Your task to perform on an android device: Go to Android settings Image 0: 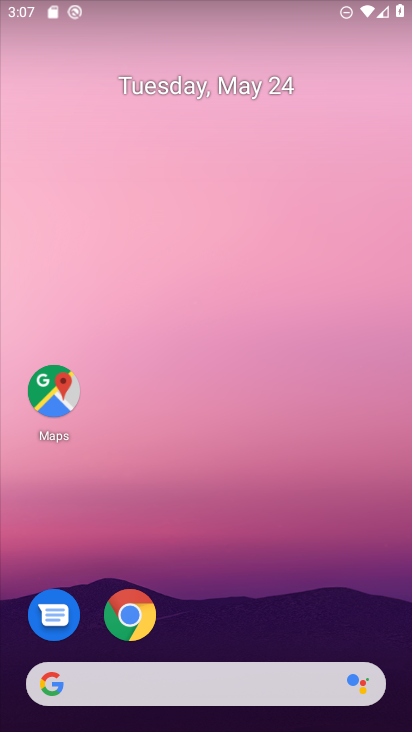
Step 0: drag from (245, 623) to (314, 123)
Your task to perform on an android device: Go to Android settings Image 1: 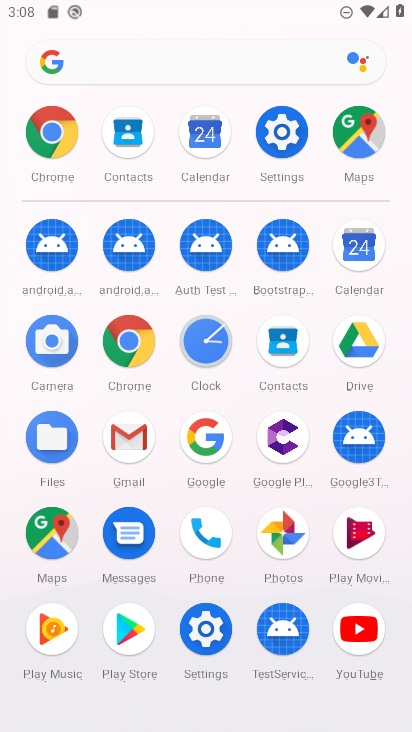
Step 1: click (281, 147)
Your task to perform on an android device: Go to Android settings Image 2: 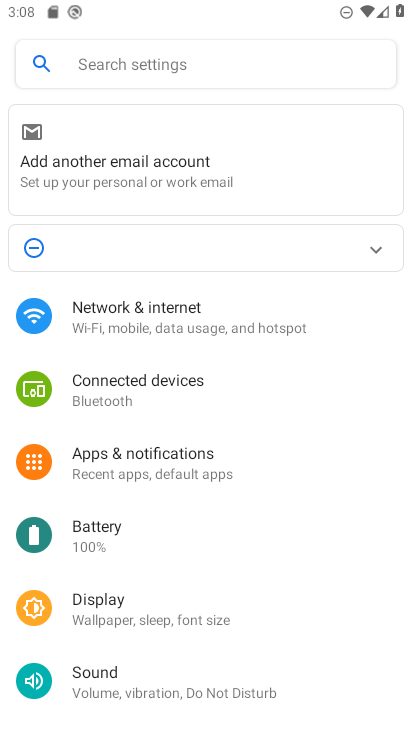
Step 2: drag from (229, 503) to (266, 263)
Your task to perform on an android device: Go to Android settings Image 3: 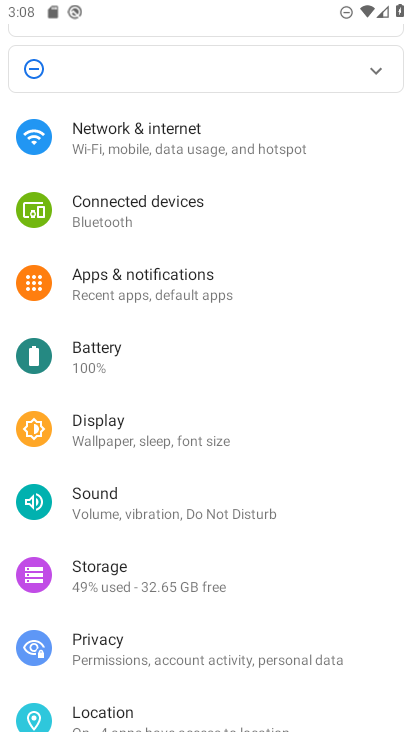
Step 3: drag from (232, 490) to (332, 11)
Your task to perform on an android device: Go to Android settings Image 4: 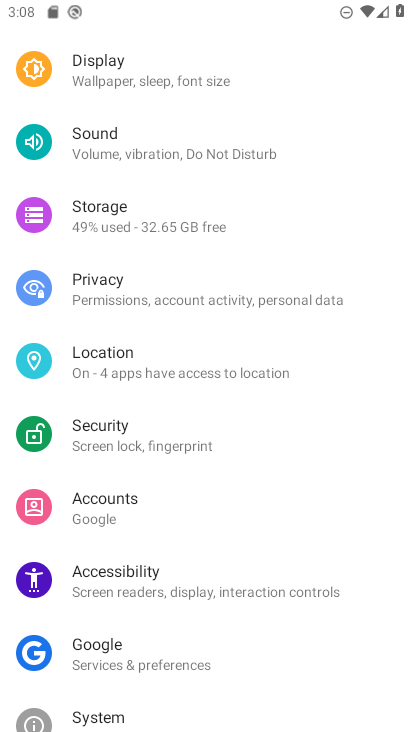
Step 4: drag from (235, 499) to (338, 21)
Your task to perform on an android device: Go to Android settings Image 5: 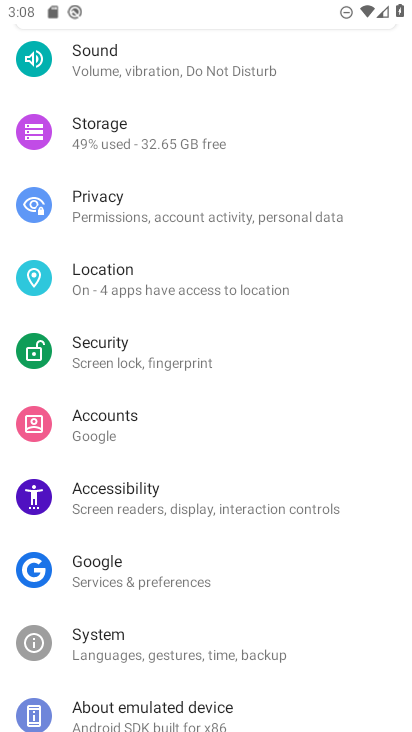
Step 5: drag from (190, 566) to (348, 96)
Your task to perform on an android device: Go to Android settings Image 6: 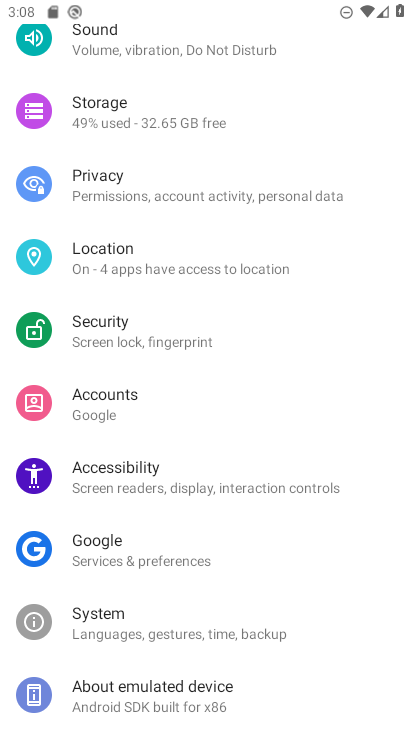
Step 6: drag from (165, 599) to (271, 236)
Your task to perform on an android device: Go to Android settings Image 7: 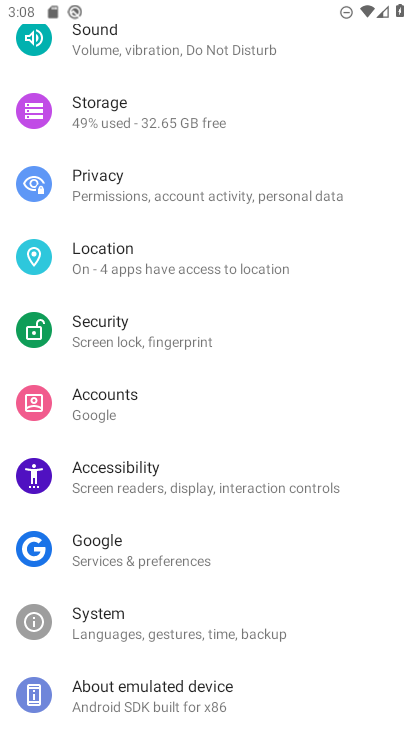
Step 7: click (211, 692)
Your task to perform on an android device: Go to Android settings Image 8: 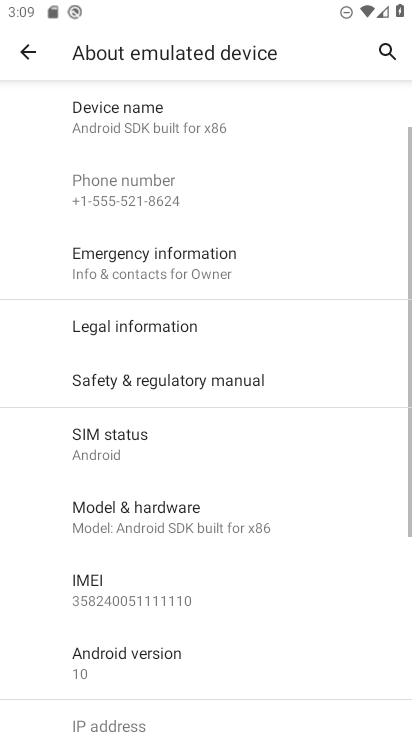
Step 8: drag from (192, 528) to (275, 198)
Your task to perform on an android device: Go to Android settings Image 9: 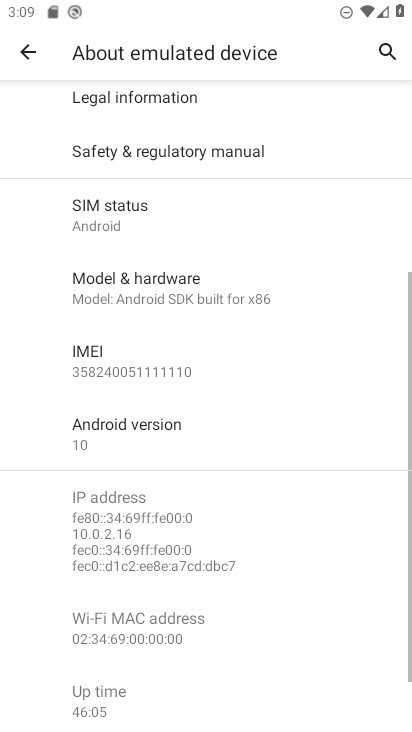
Step 9: click (178, 441)
Your task to perform on an android device: Go to Android settings Image 10: 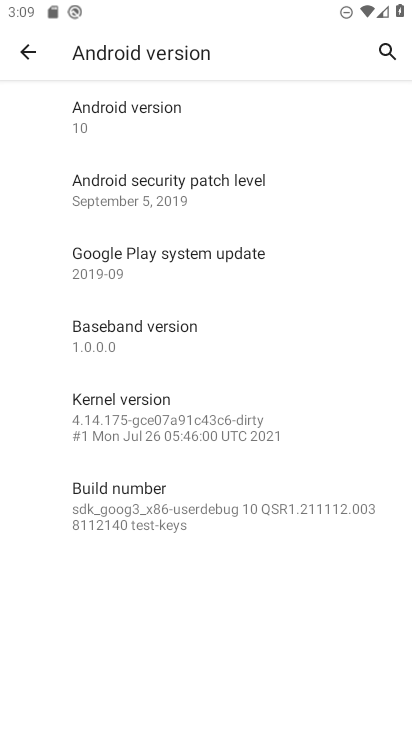
Step 10: task complete